Your task to perform on an android device: Open settings Image 0: 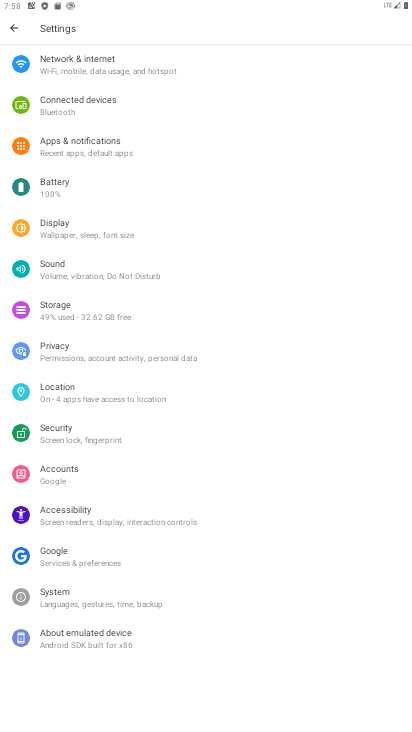
Step 0: press home button
Your task to perform on an android device: Open settings Image 1: 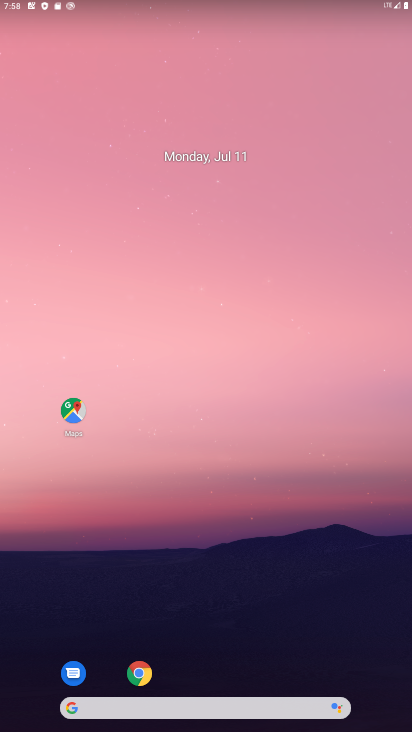
Step 1: drag from (205, 642) to (244, 221)
Your task to perform on an android device: Open settings Image 2: 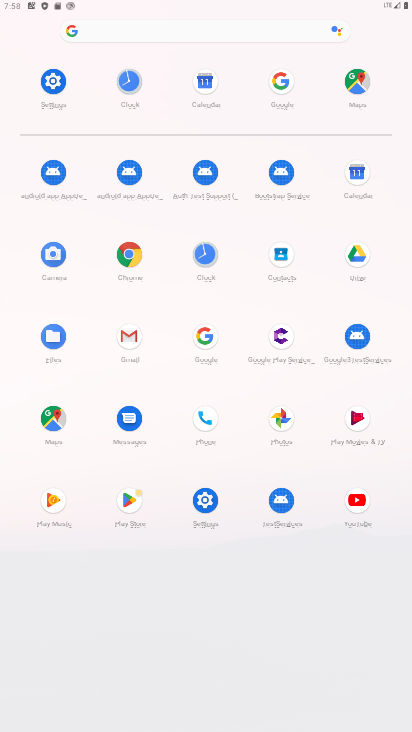
Step 2: click (62, 78)
Your task to perform on an android device: Open settings Image 3: 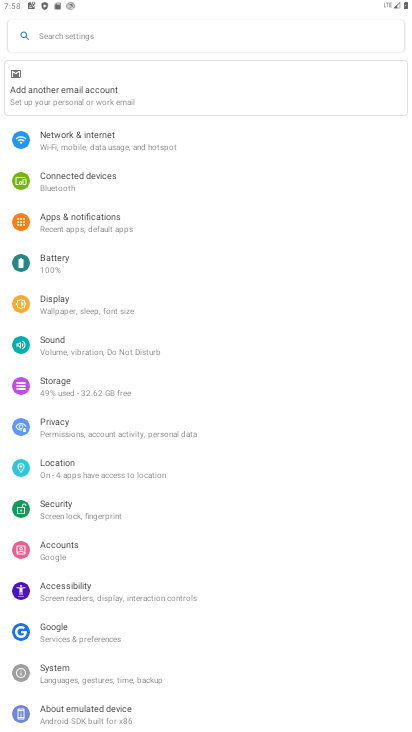
Step 3: task complete